Your task to perform on an android device: change the clock display to digital Image 0: 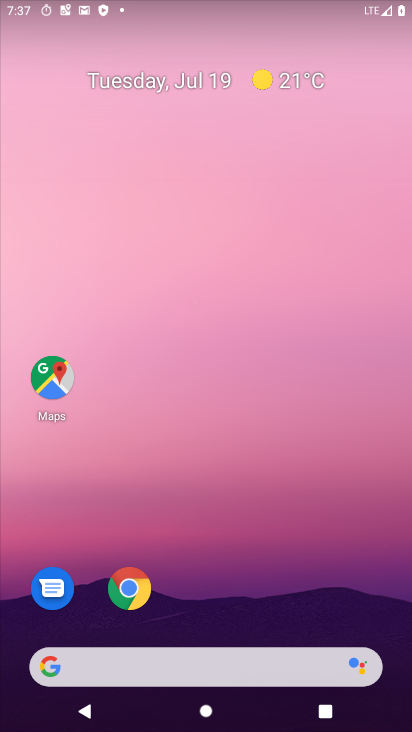
Step 0: drag from (247, 592) to (255, 133)
Your task to perform on an android device: change the clock display to digital Image 1: 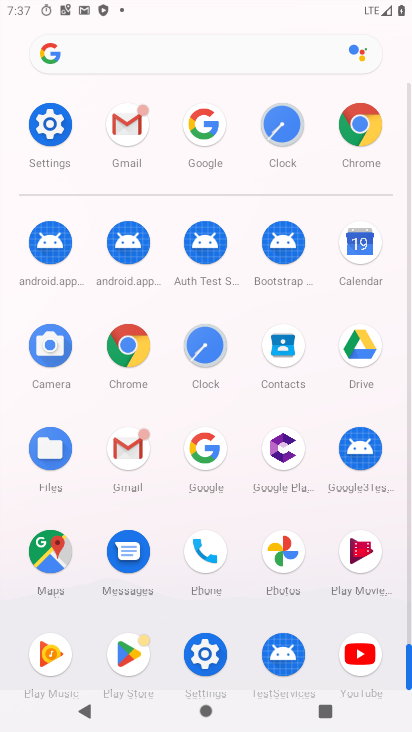
Step 1: click (199, 358)
Your task to perform on an android device: change the clock display to digital Image 2: 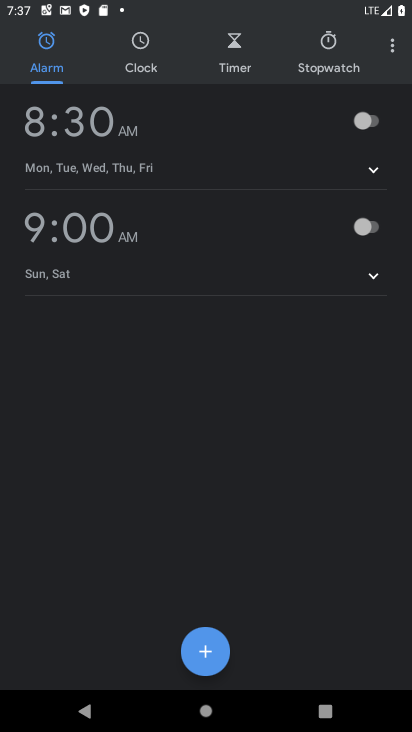
Step 2: click (395, 55)
Your task to perform on an android device: change the clock display to digital Image 3: 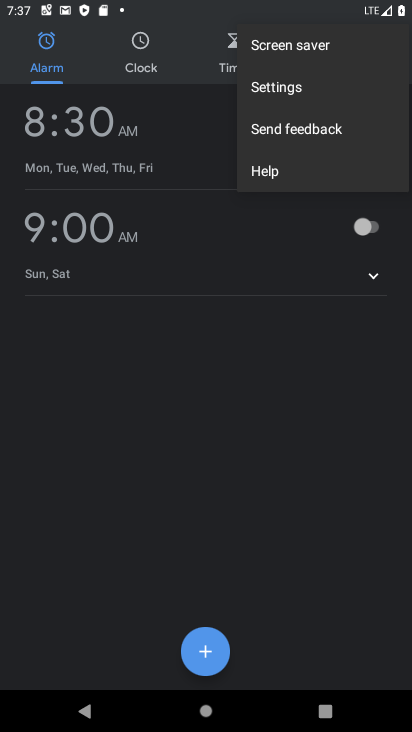
Step 3: click (310, 96)
Your task to perform on an android device: change the clock display to digital Image 4: 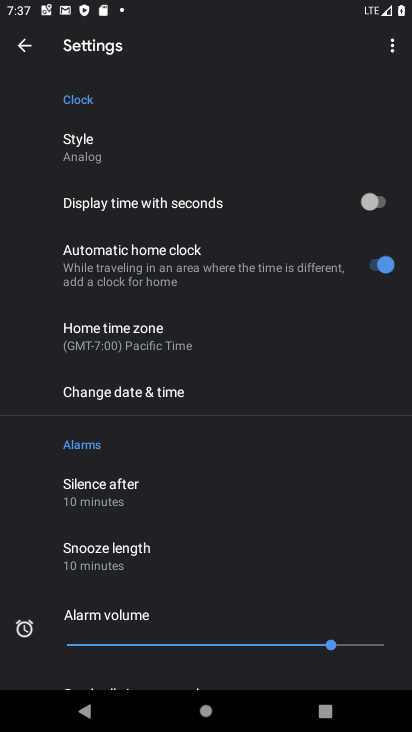
Step 4: click (99, 152)
Your task to perform on an android device: change the clock display to digital Image 5: 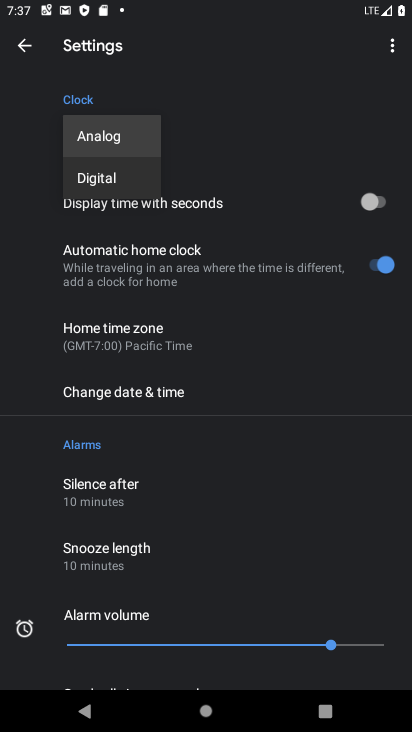
Step 5: click (112, 184)
Your task to perform on an android device: change the clock display to digital Image 6: 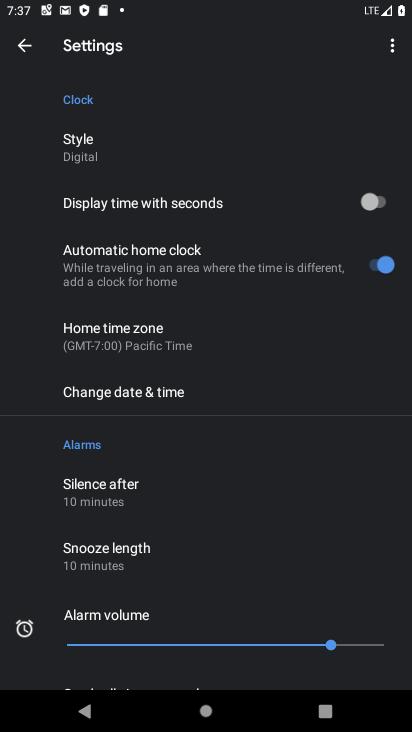
Step 6: task complete